Your task to perform on an android device: toggle sleep mode Image 0: 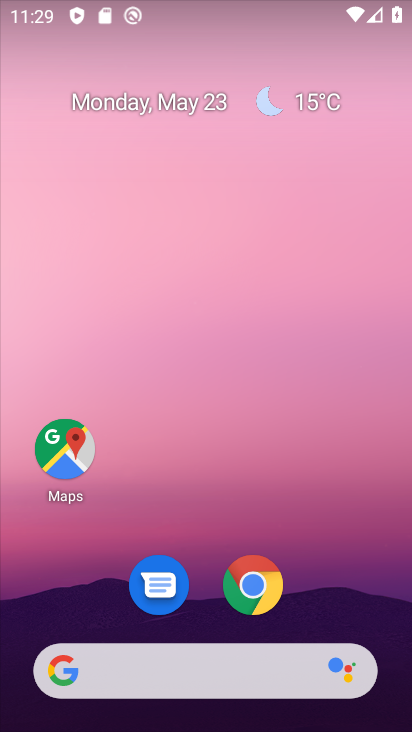
Step 0: drag from (247, 496) to (252, 33)
Your task to perform on an android device: toggle sleep mode Image 1: 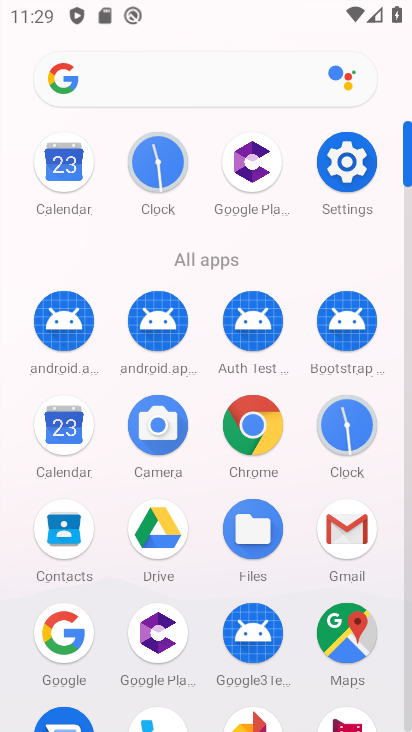
Step 1: click (343, 164)
Your task to perform on an android device: toggle sleep mode Image 2: 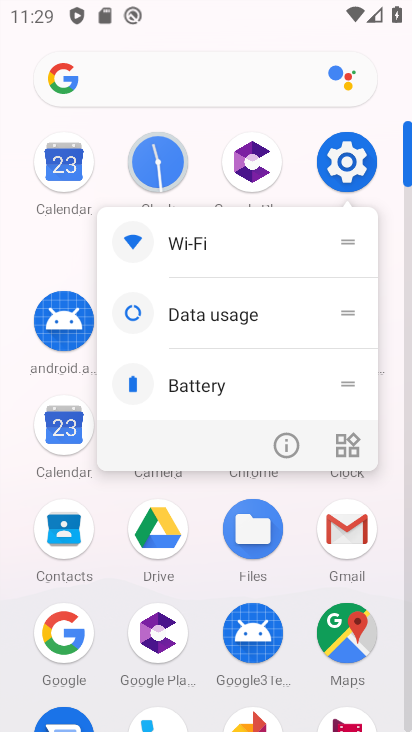
Step 2: click (343, 155)
Your task to perform on an android device: toggle sleep mode Image 3: 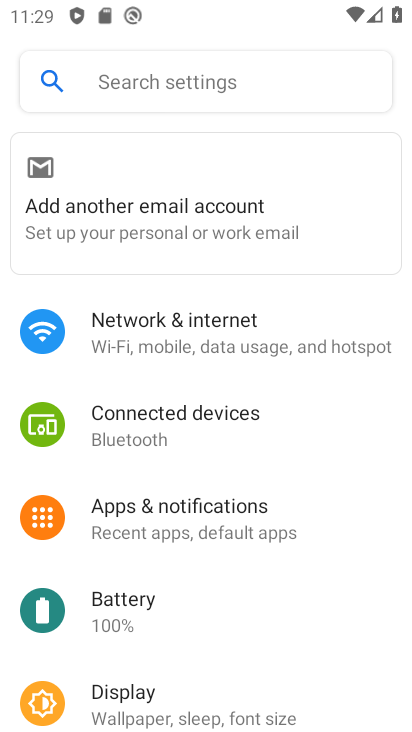
Step 3: drag from (182, 607) to (206, 253)
Your task to perform on an android device: toggle sleep mode Image 4: 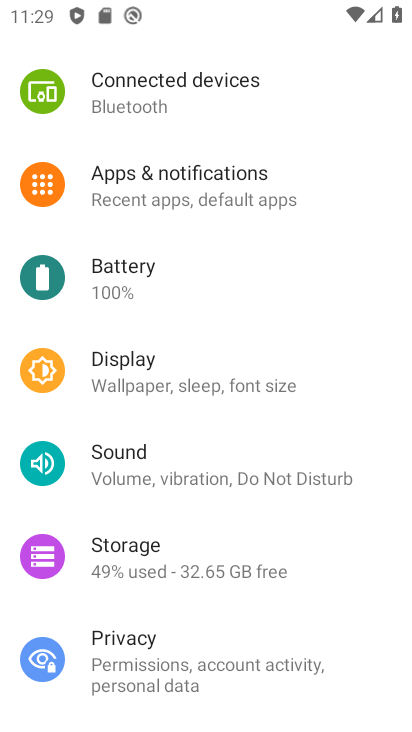
Step 4: click (214, 374)
Your task to perform on an android device: toggle sleep mode Image 5: 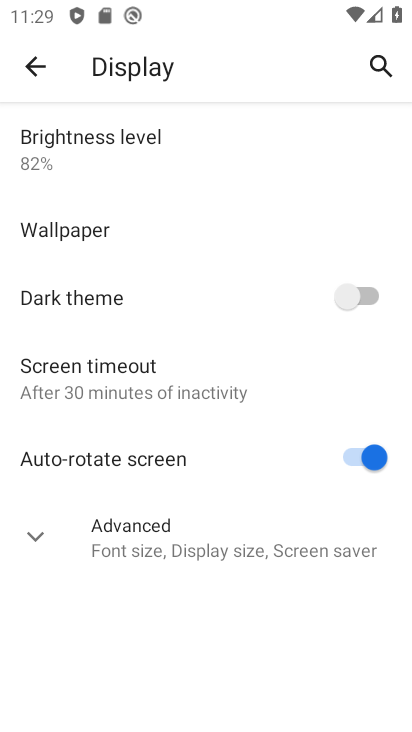
Step 5: click (36, 533)
Your task to perform on an android device: toggle sleep mode Image 6: 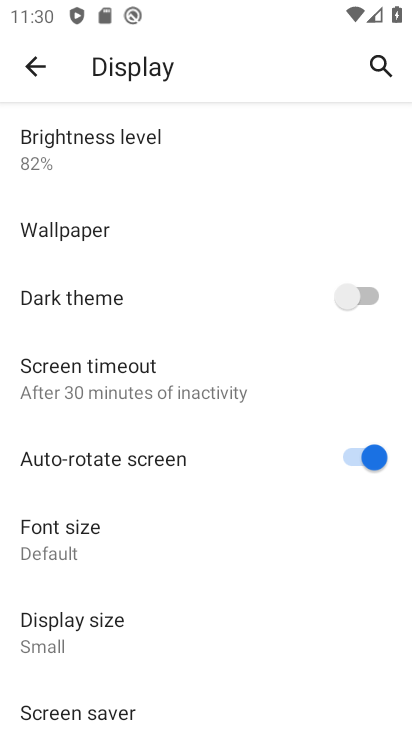
Step 6: task complete